Your task to perform on an android device: check data usage Image 0: 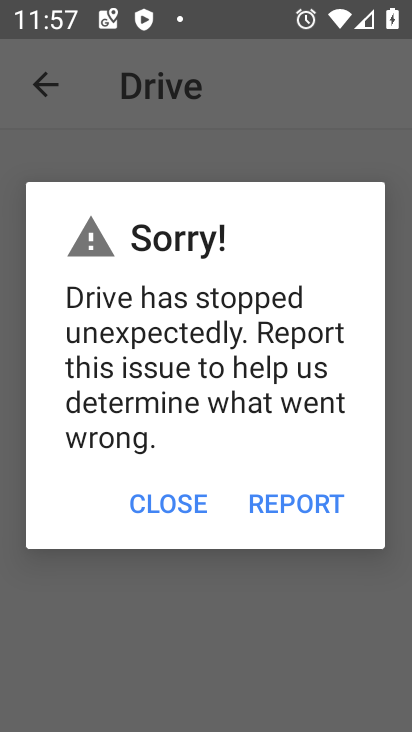
Step 0: press home button
Your task to perform on an android device: check data usage Image 1: 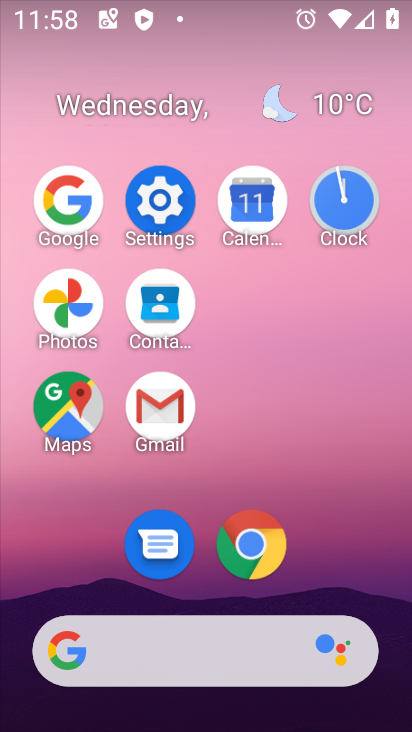
Step 1: click (163, 183)
Your task to perform on an android device: check data usage Image 2: 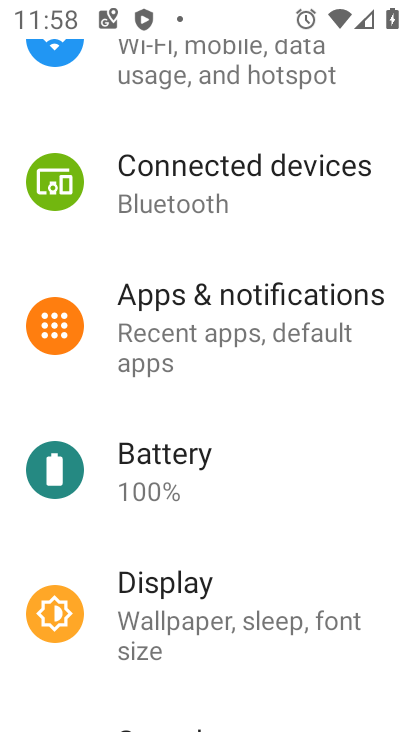
Step 2: drag from (288, 224) to (272, 643)
Your task to perform on an android device: check data usage Image 3: 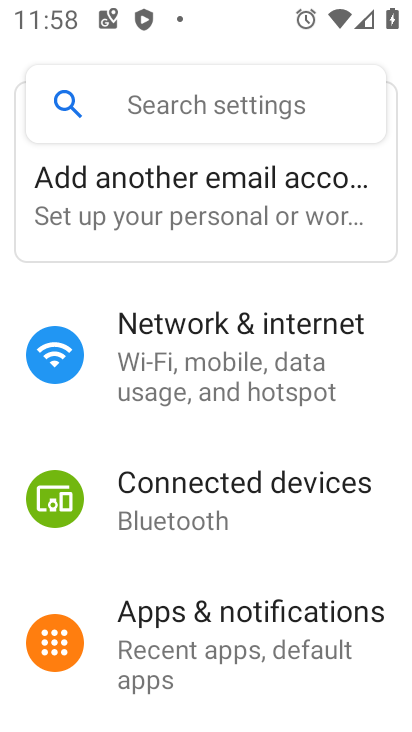
Step 3: click (279, 352)
Your task to perform on an android device: check data usage Image 4: 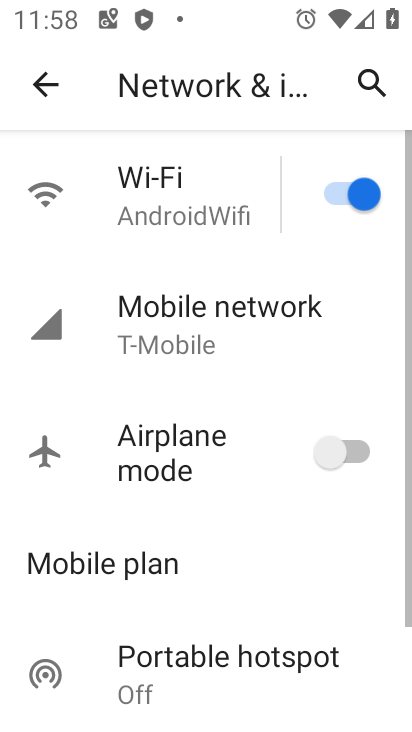
Step 4: click (279, 352)
Your task to perform on an android device: check data usage Image 5: 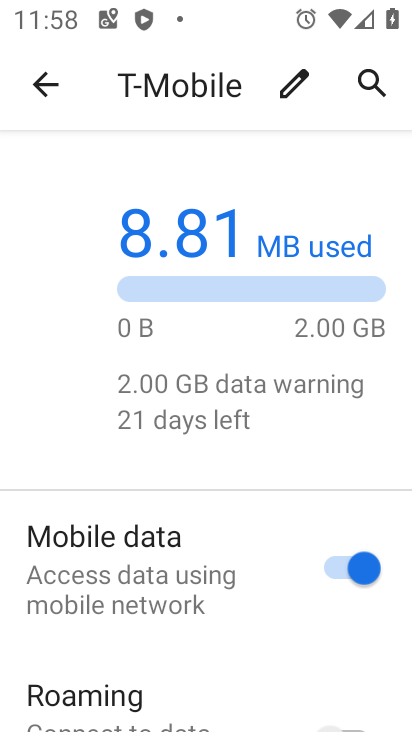
Step 5: task complete